Your task to perform on an android device: Show me the alarms in the clock app Image 0: 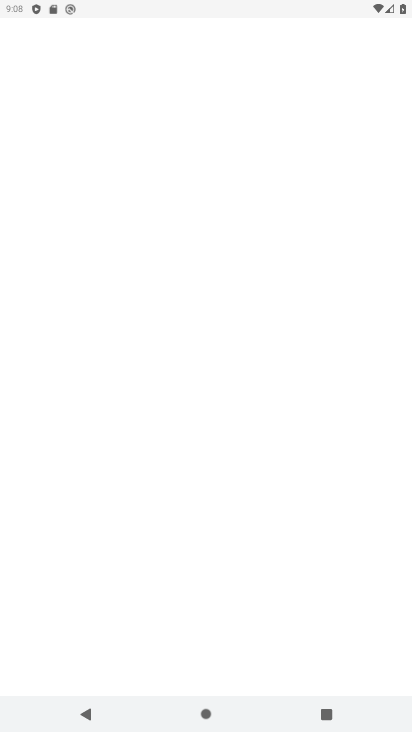
Step 0: drag from (176, 669) to (145, 171)
Your task to perform on an android device: Show me the alarms in the clock app Image 1: 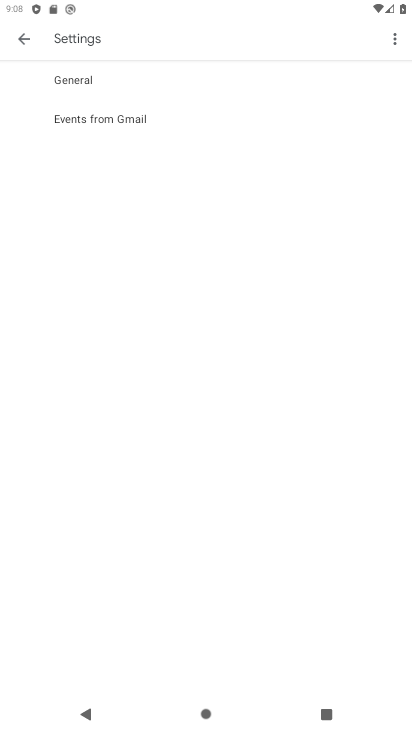
Step 1: press home button
Your task to perform on an android device: Show me the alarms in the clock app Image 2: 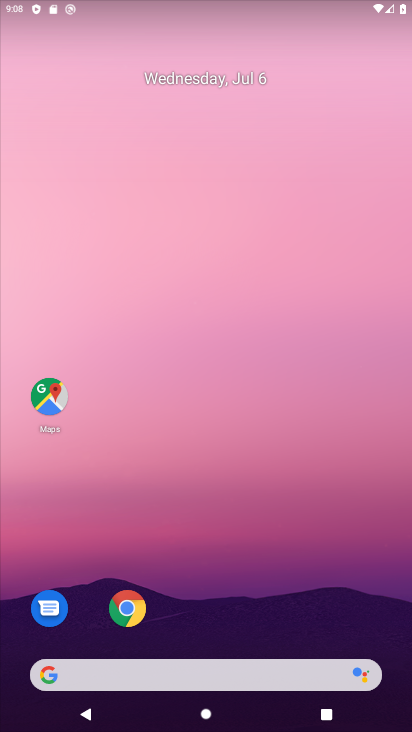
Step 2: drag from (235, 672) to (261, 279)
Your task to perform on an android device: Show me the alarms in the clock app Image 3: 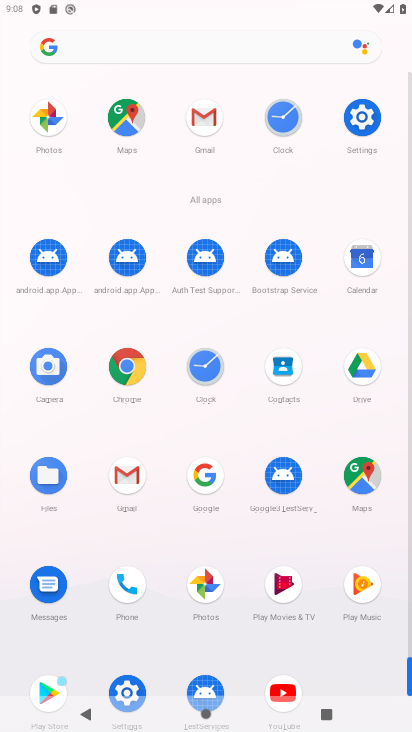
Step 3: click (213, 374)
Your task to perform on an android device: Show me the alarms in the clock app Image 4: 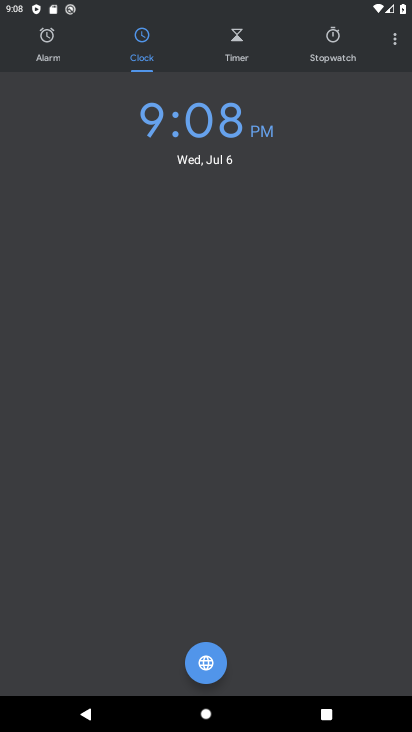
Step 4: click (42, 51)
Your task to perform on an android device: Show me the alarms in the clock app Image 5: 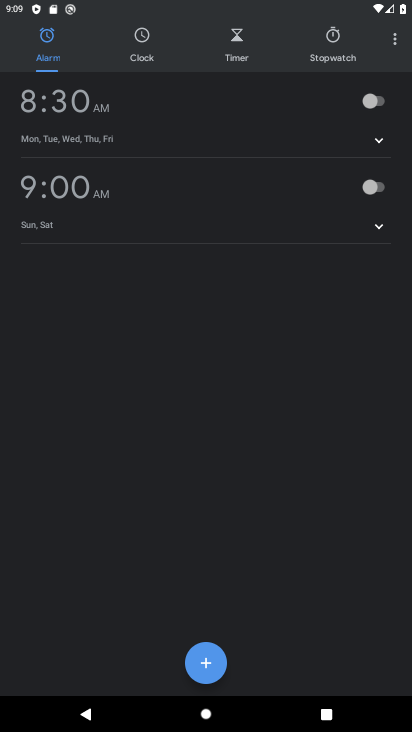
Step 5: task complete